Your task to perform on an android device: change your default location settings in chrome Image 0: 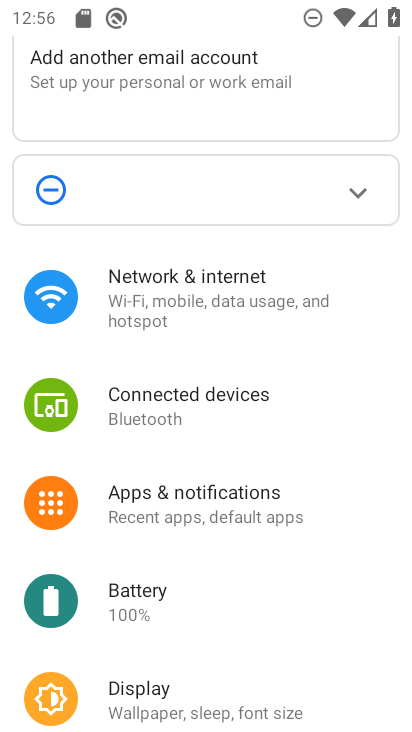
Step 0: press home button
Your task to perform on an android device: change your default location settings in chrome Image 1: 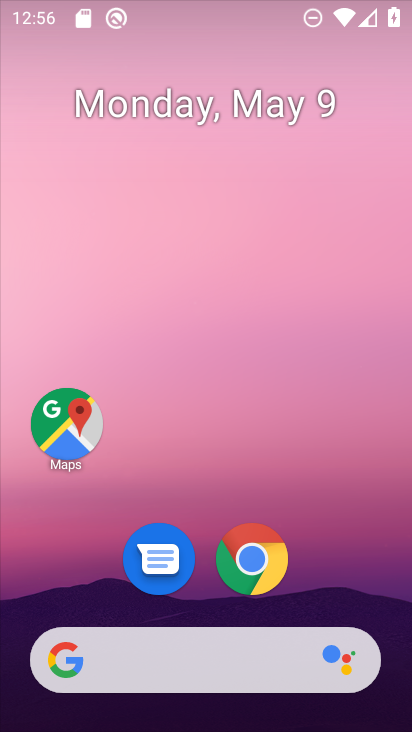
Step 1: drag from (333, 531) to (366, 59)
Your task to perform on an android device: change your default location settings in chrome Image 2: 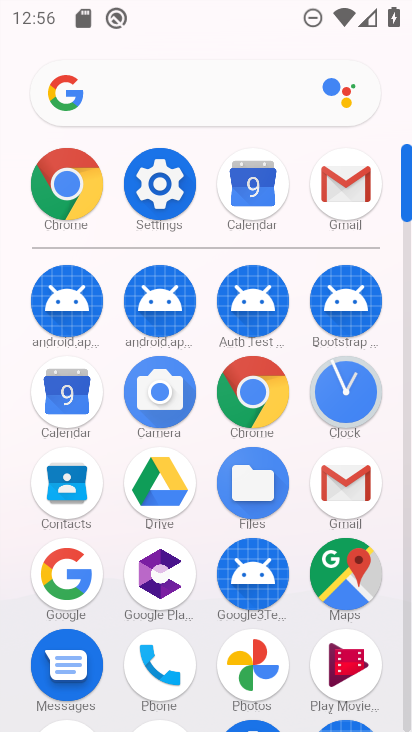
Step 2: click (275, 402)
Your task to perform on an android device: change your default location settings in chrome Image 3: 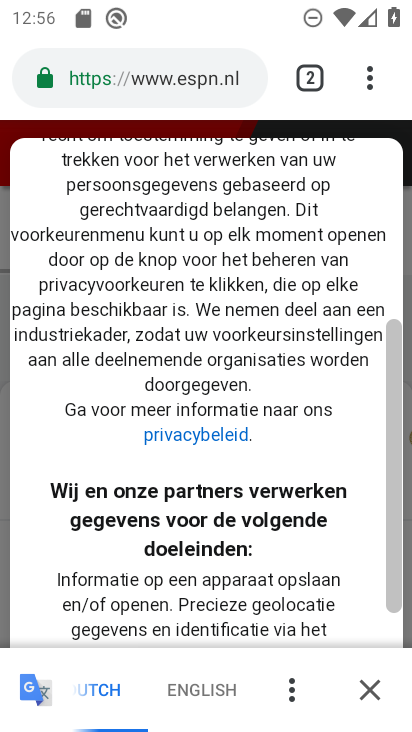
Step 3: drag from (366, 69) to (165, 416)
Your task to perform on an android device: change your default location settings in chrome Image 4: 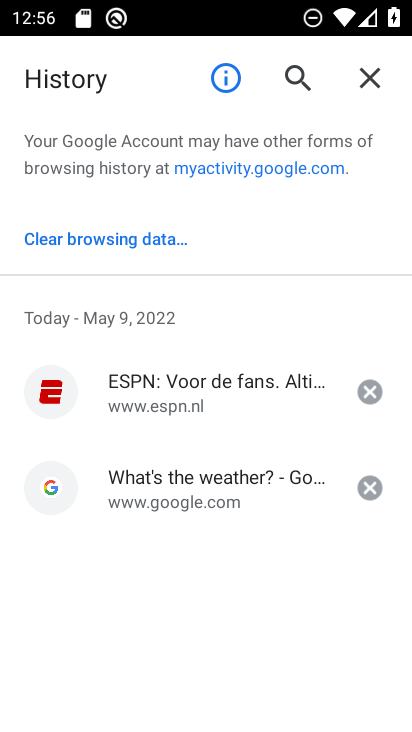
Step 4: click (368, 93)
Your task to perform on an android device: change your default location settings in chrome Image 5: 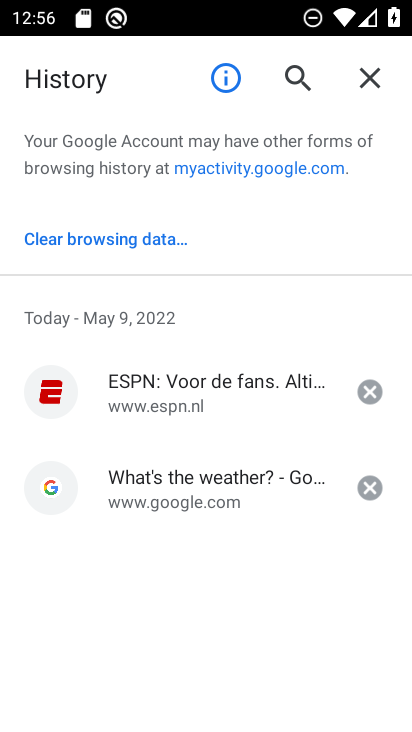
Step 5: click (380, 70)
Your task to perform on an android device: change your default location settings in chrome Image 6: 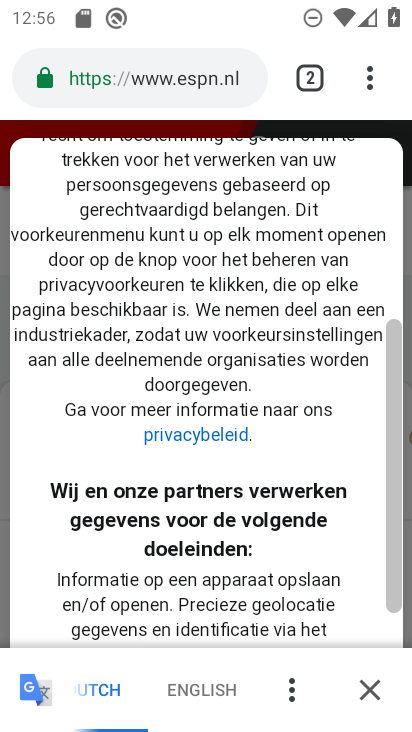
Step 6: click (363, 78)
Your task to perform on an android device: change your default location settings in chrome Image 7: 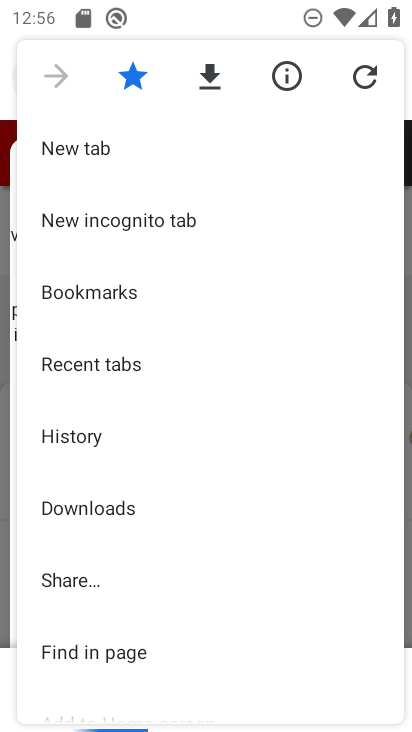
Step 7: drag from (168, 618) to (296, 13)
Your task to perform on an android device: change your default location settings in chrome Image 8: 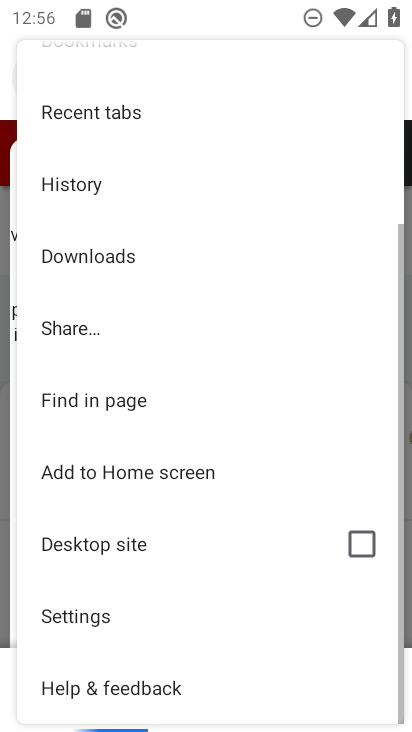
Step 8: click (129, 626)
Your task to perform on an android device: change your default location settings in chrome Image 9: 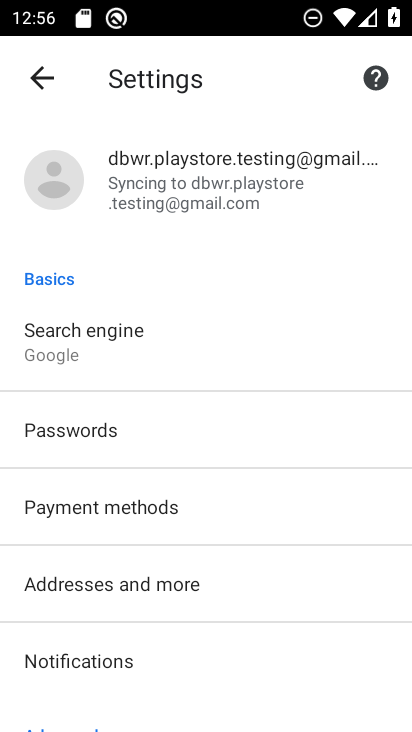
Step 9: drag from (266, 477) to (272, 258)
Your task to perform on an android device: change your default location settings in chrome Image 10: 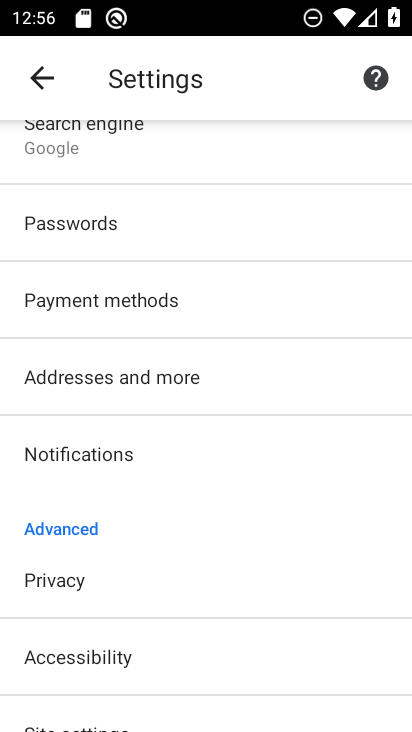
Step 10: drag from (249, 706) to (310, 231)
Your task to perform on an android device: change your default location settings in chrome Image 11: 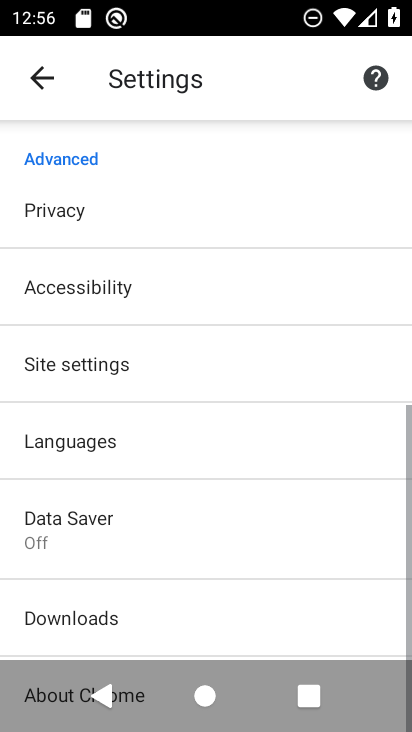
Step 11: drag from (184, 567) to (263, 312)
Your task to perform on an android device: change your default location settings in chrome Image 12: 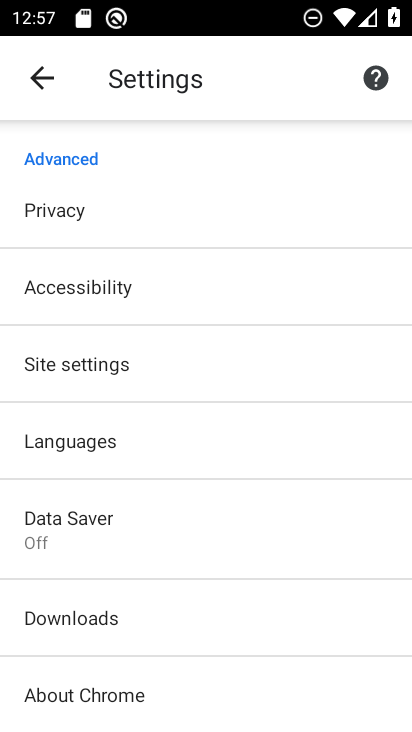
Step 12: click (93, 380)
Your task to perform on an android device: change your default location settings in chrome Image 13: 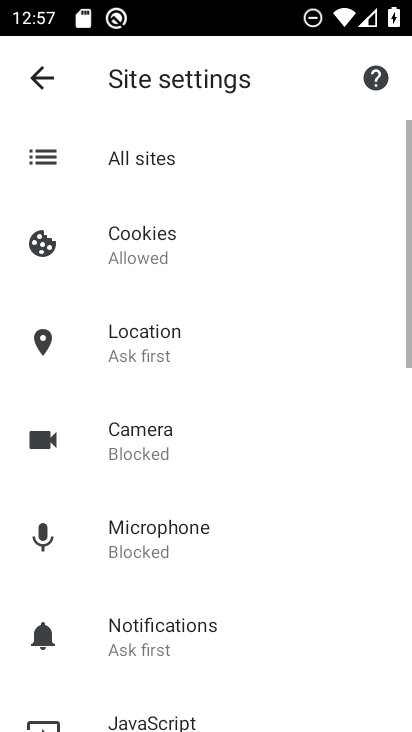
Step 13: click (96, 374)
Your task to perform on an android device: change your default location settings in chrome Image 14: 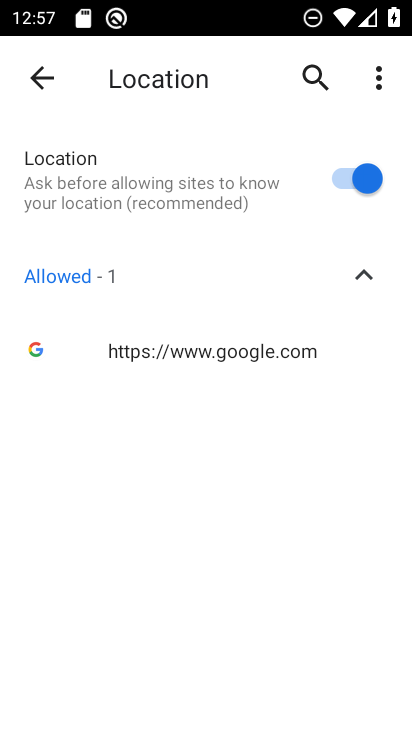
Step 14: task complete